Your task to perform on an android device: Do I have any events tomorrow? Image 0: 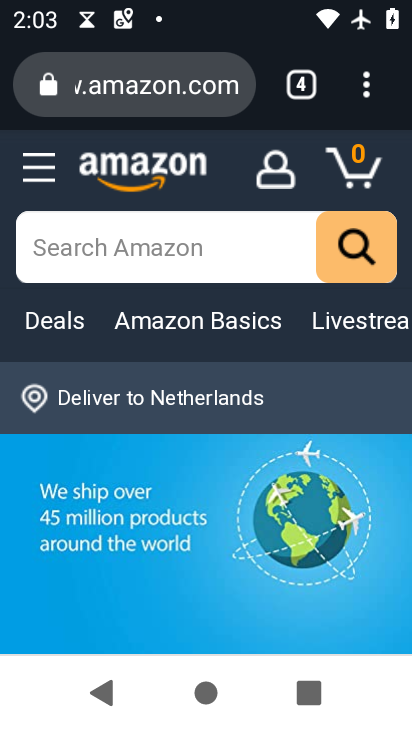
Step 0: press home button
Your task to perform on an android device: Do I have any events tomorrow? Image 1: 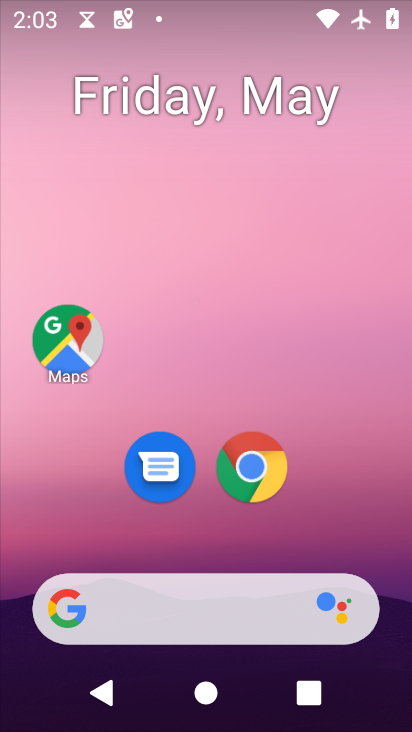
Step 1: drag from (330, 521) to (279, 74)
Your task to perform on an android device: Do I have any events tomorrow? Image 2: 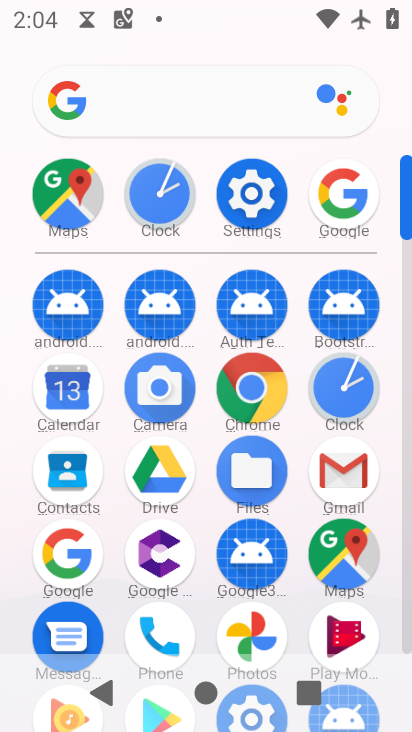
Step 2: click (71, 392)
Your task to perform on an android device: Do I have any events tomorrow? Image 3: 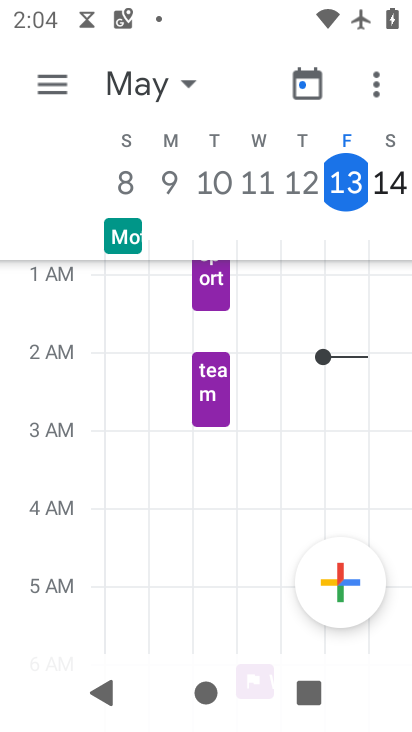
Step 3: click (188, 79)
Your task to perform on an android device: Do I have any events tomorrow? Image 4: 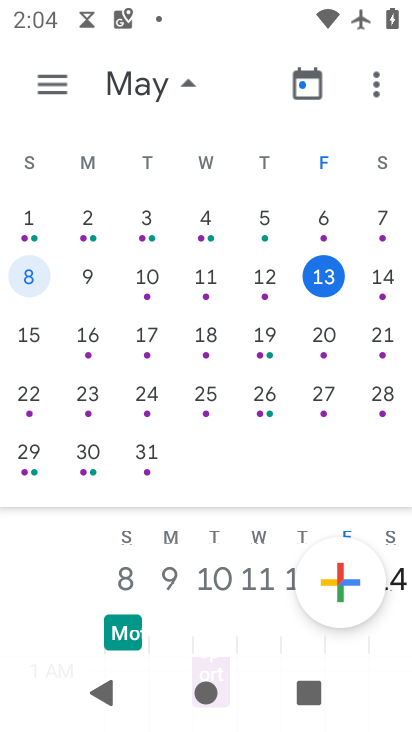
Step 4: click (300, 89)
Your task to perform on an android device: Do I have any events tomorrow? Image 5: 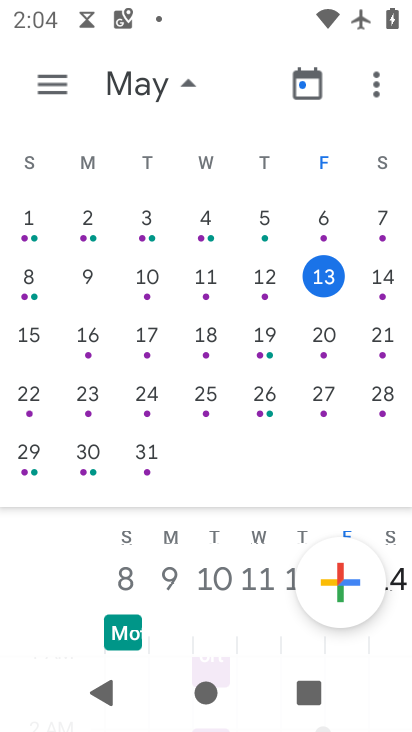
Step 5: click (325, 280)
Your task to perform on an android device: Do I have any events tomorrow? Image 6: 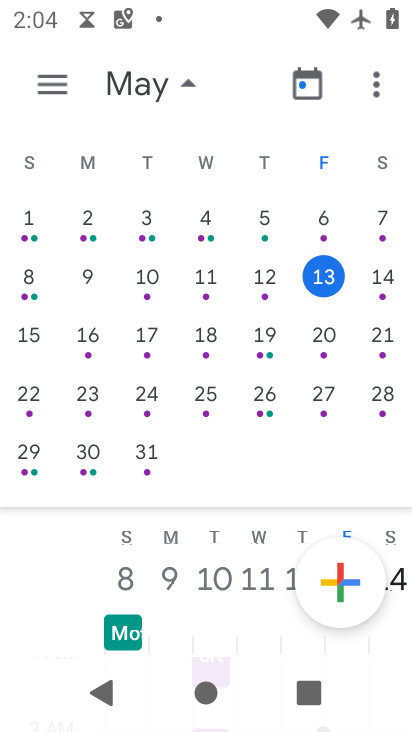
Step 6: click (392, 281)
Your task to perform on an android device: Do I have any events tomorrow? Image 7: 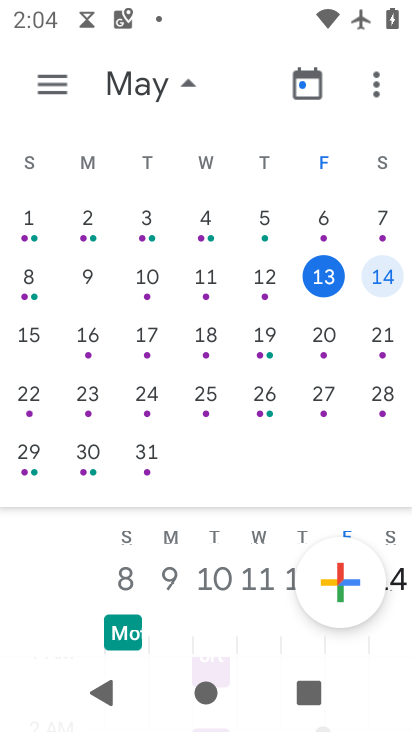
Step 7: click (57, 92)
Your task to perform on an android device: Do I have any events tomorrow? Image 8: 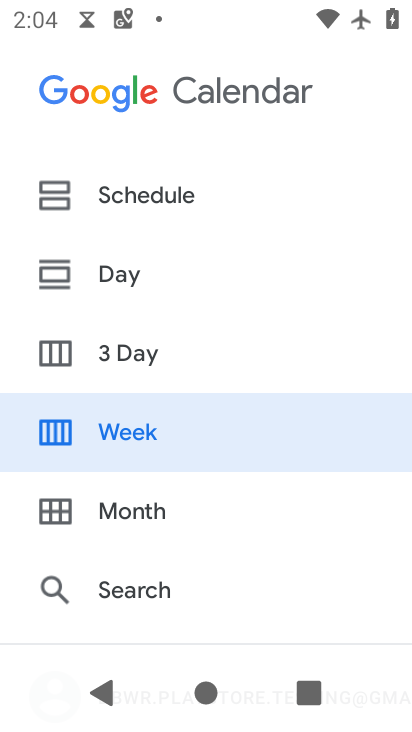
Step 8: click (162, 201)
Your task to perform on an android device: Do I have any events tomorrow? Image 9: 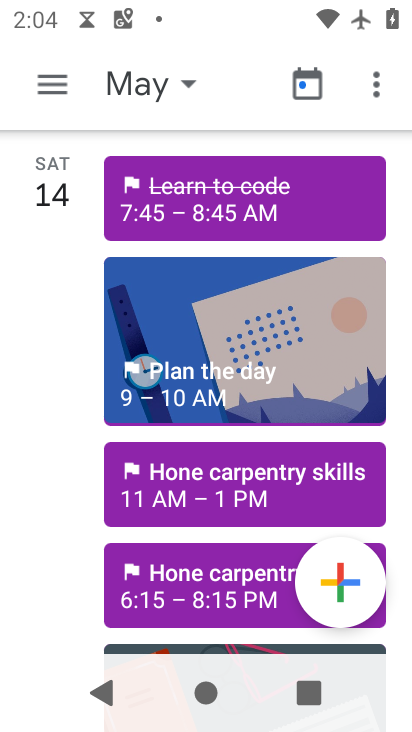
Step 9: task complete